Your task to perform on an android device: allow notifications from all sites in the chrome app Image 0: 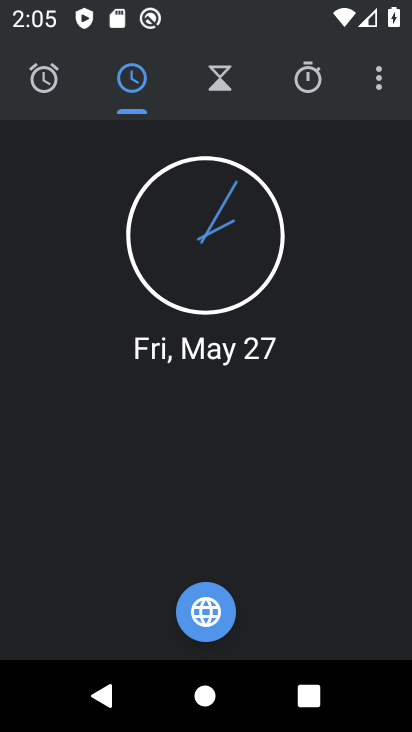
Step 0: press back button
Your task to perform on an android device: allow notifications from all sites in the chrome app Image 1: 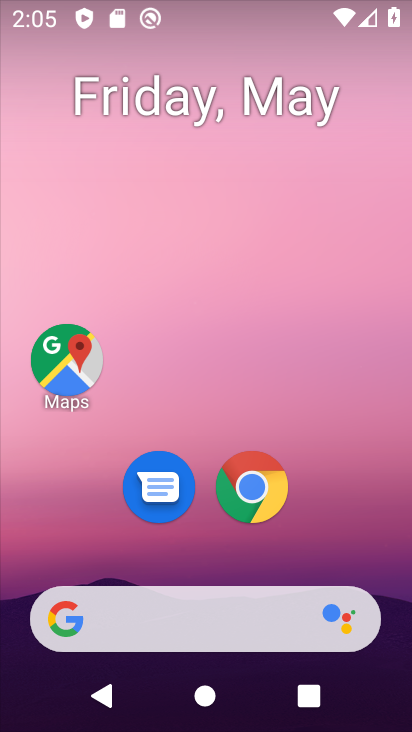
Step 1: drag from (226, 509) to (246, 69)
Your task to perform on an android device: allow notifications from all sites in the chrome app Image 2: 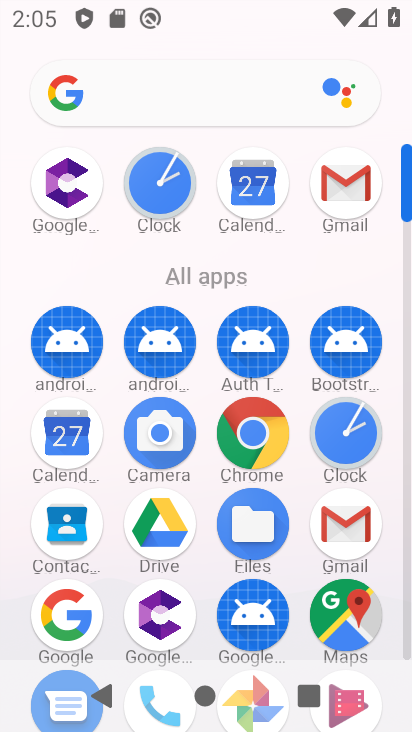
Step 2: drag from (208, 597) to (252, 146)
Your task to perform on an android device: allow notifications from all sites in the chrome app Image 3: 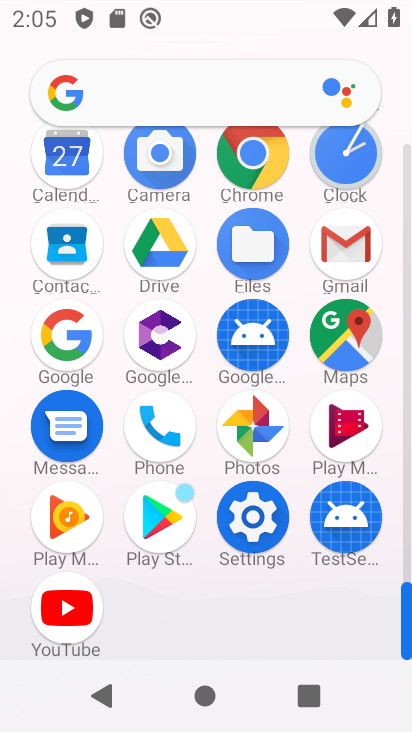
Step 3: click (247, 180)
Your task to perform on an android device: allow notifications from all sites in the chrome app Image 4: 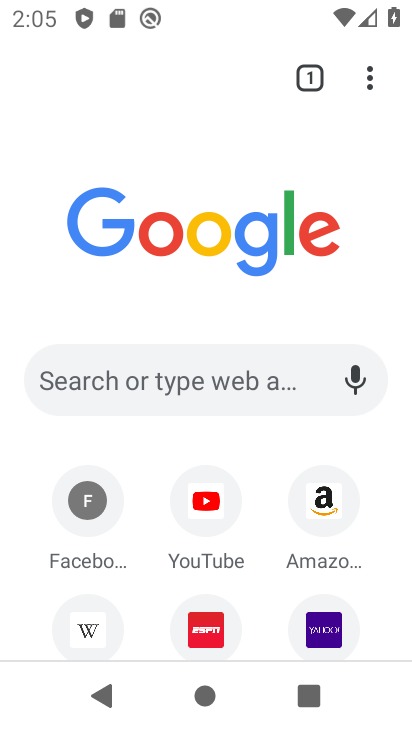
Step 4: click (363, 67)
Your task to perform on an android device: allow notifications from all sites in the chrome app Image 5: 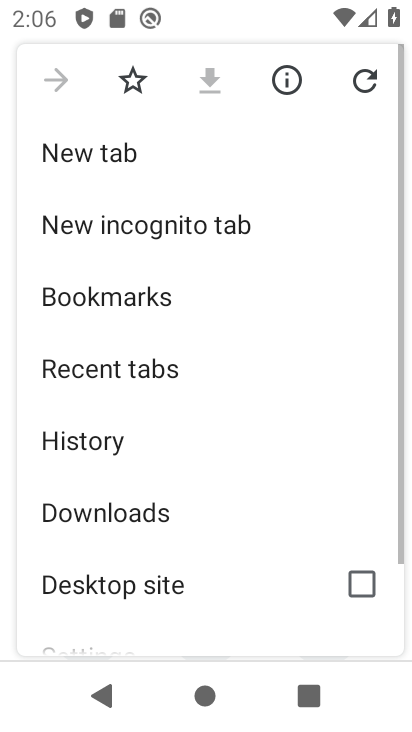
Step 5: drag from (98, 574) to (170, 141)
Your task to perform on an android device: allow notifications from all sites in the chrome app Image 6: 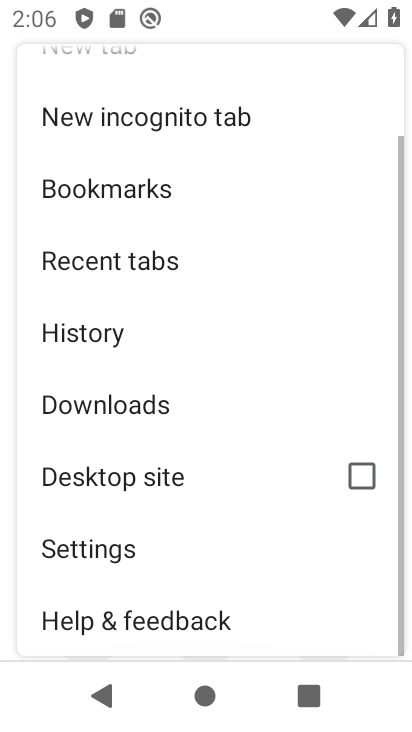
Step 6: click (90, 551)
Your task to perform on an android device: allow notifications from all sites in the chrome app Image 7: 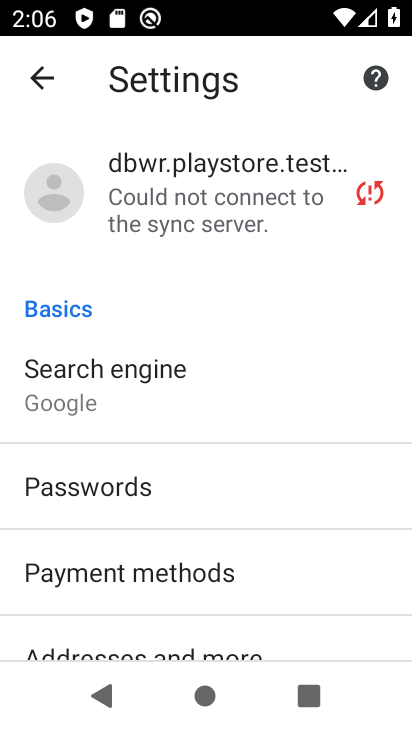
Step 7: drag from (153, 581) to (214, 182)
Your task to perform on an android device: allow notifications from all sites in the chrome app Image 8: 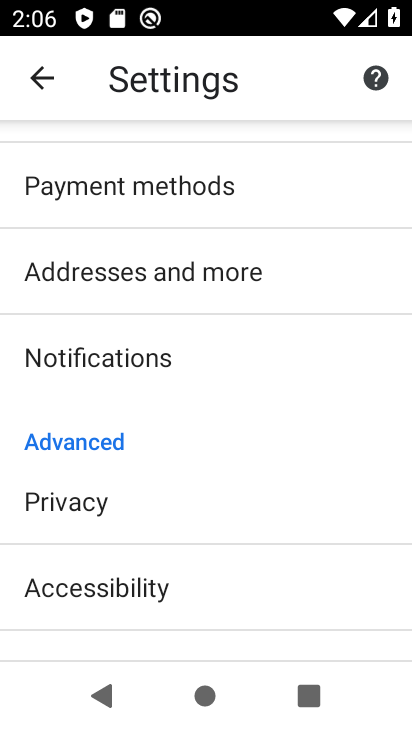
Step 8: click (108, 362)
Your task to perform on an android device: allow notifications from all sites in the chrome app Image 9: 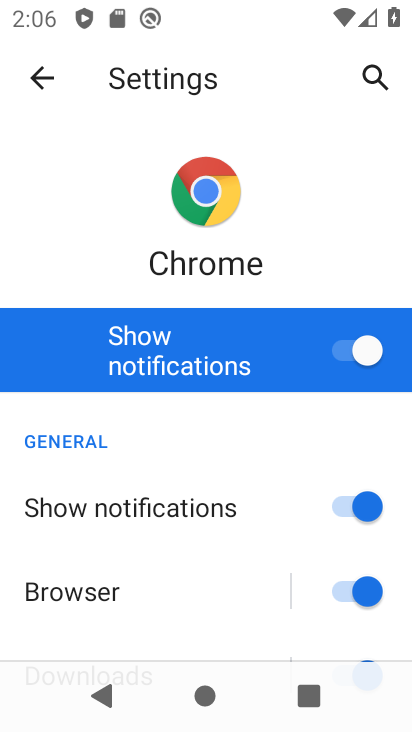
Step 9: task complete